Your task to perform on an android device: turn on priority inbox in the gmail app Image 0: 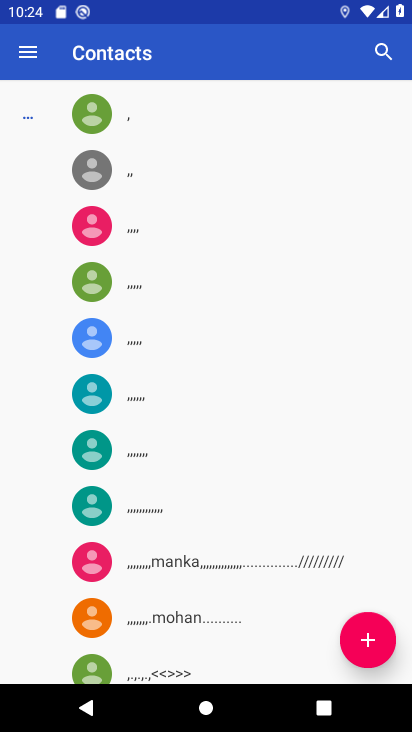
Step 0: press home button
Your task to perform on an android device: turn on priority inbox in the gmail app Image 1: 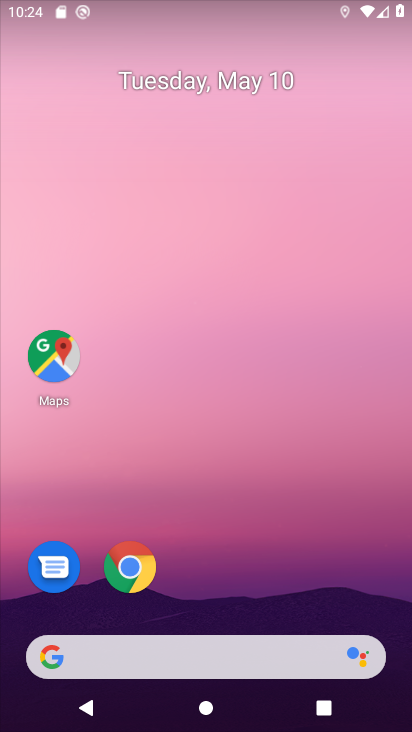
Step 1: drag from (203, 542) to (275, 23)
Your task to perform on an android device: turn on priority inbox in the gmail app Image 2: 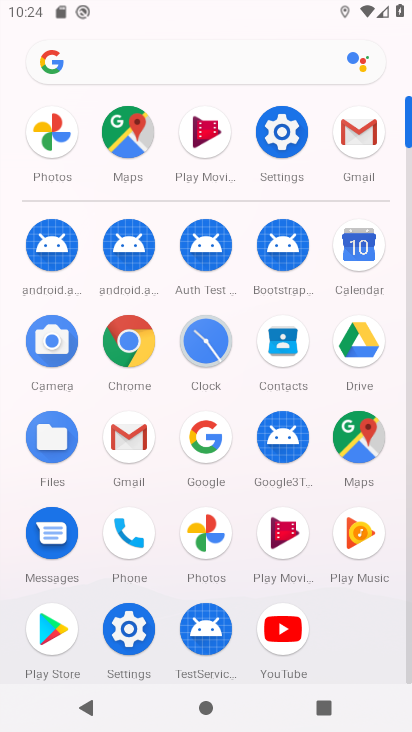
Step 2: click (369, 155)
Your task to perform on an android device: turn on priority inbox in the gmail app Image 3: 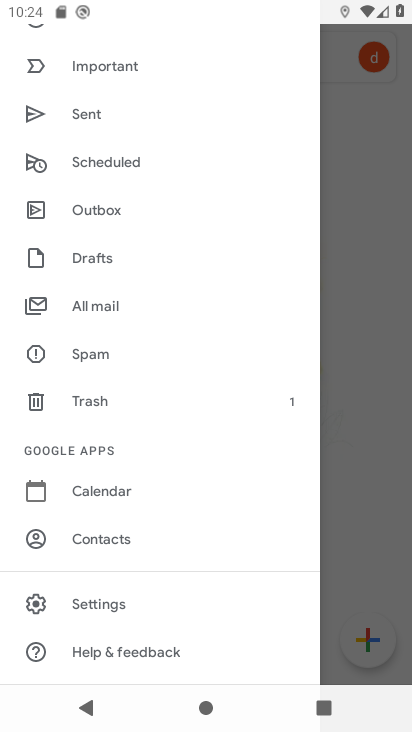
Step 3: click (346, 167)
Your task to perform on an android device: turn on priority inbox in the gmail app Image 4: 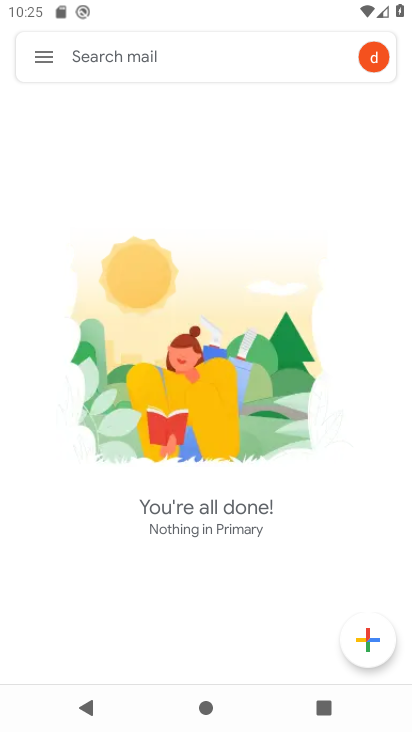
Step 4: click (39, 52)
Your task to perform on an android device: turn on priority inbox in the gmail app Image 5: 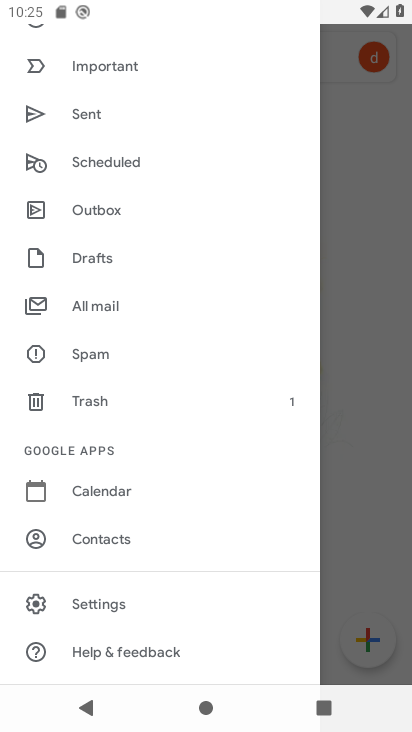
Step 5: click (102, 603)
Your task to perform on an android device: turn on priority inbox in the gmail app Image 6: 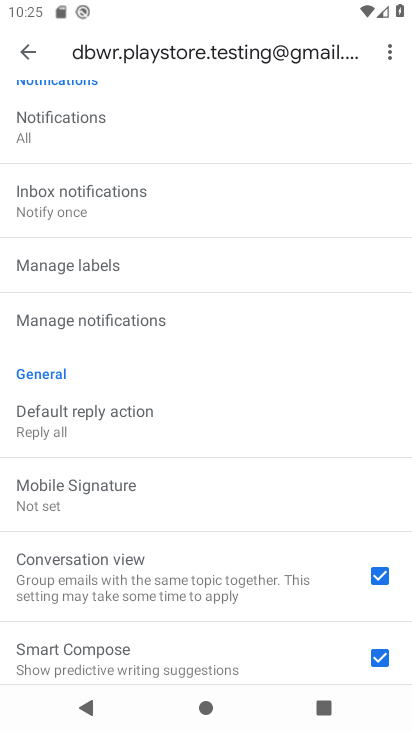
Step 6: drag from (158, 154) to (163, 480)
Your task to perform on an android device: turn on priority inbox in the gmail app Image 7: 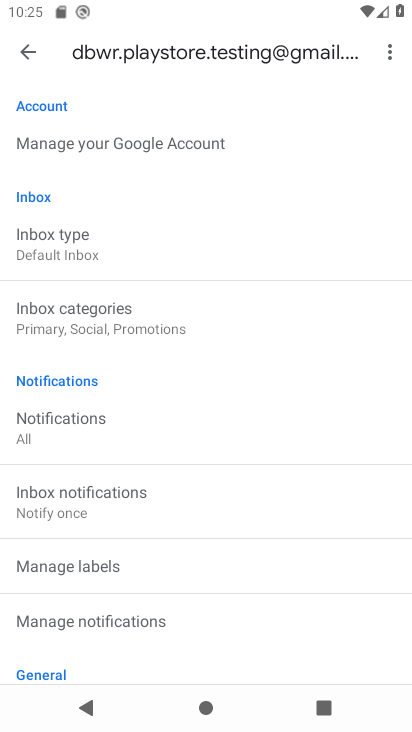
Step 7: click (107, 260)
Your task to perform on an android device: turn on priority inbox in the gmail app Image 8: 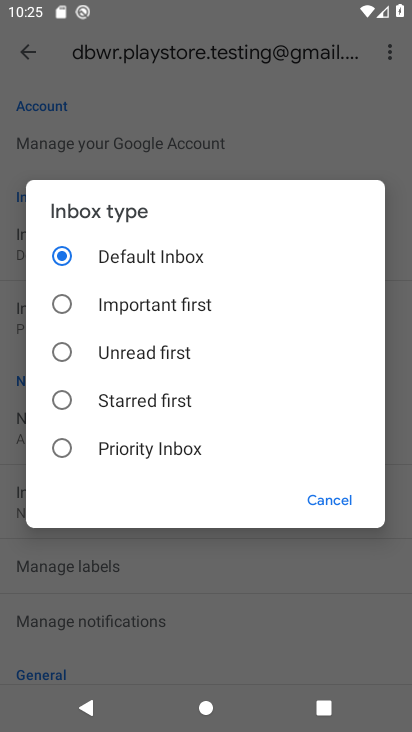
Step 8: click (59, 446)
Your task to perform on an android device: turn on priority inbox in the gmail app Image 9: 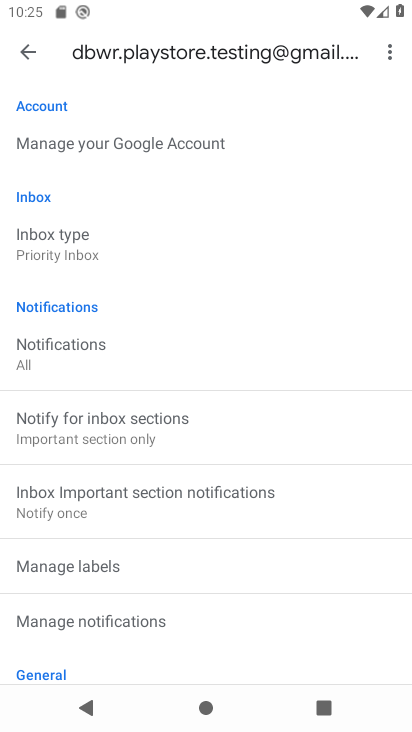
Step 9: task complete